Your task to perform on an android device: Search for pizza restaurants on Maps Image 0: 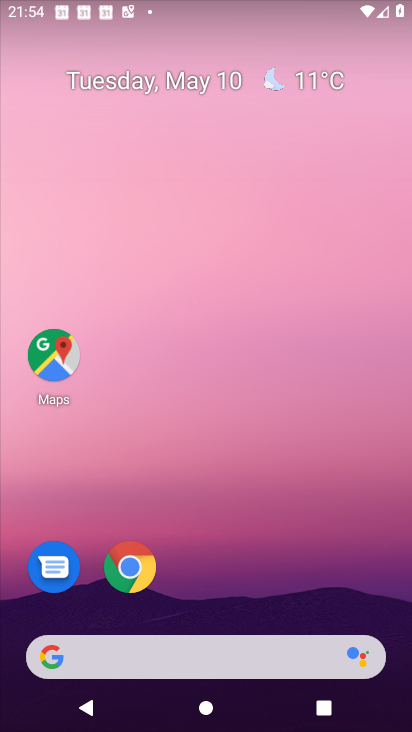
Step 0: click (42, 337)
Your task to perform on an android device: Search for pizza restaurants on Maps Image 1: 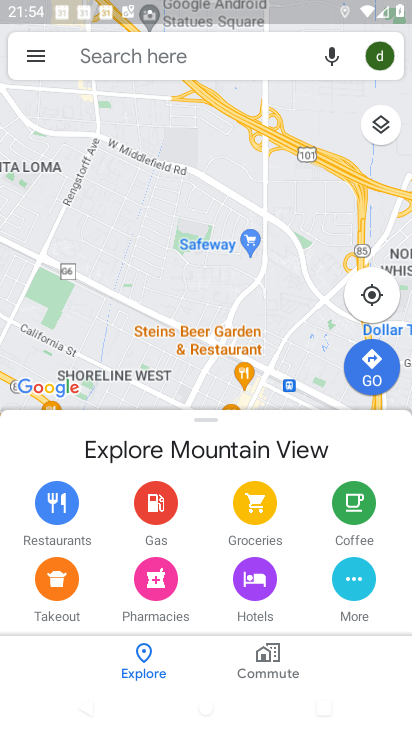
Step 1: click (135, 60)
Your task to perform on an android device: Search for pizza restaurants on Maps Image 2: 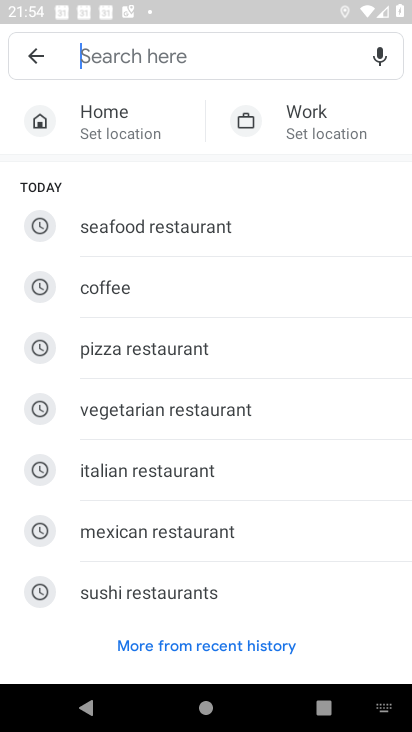
Step 2: type "pizza restaurants"
Your task to perform on an android device: Search for pizza restaurants on Maps Image 3: 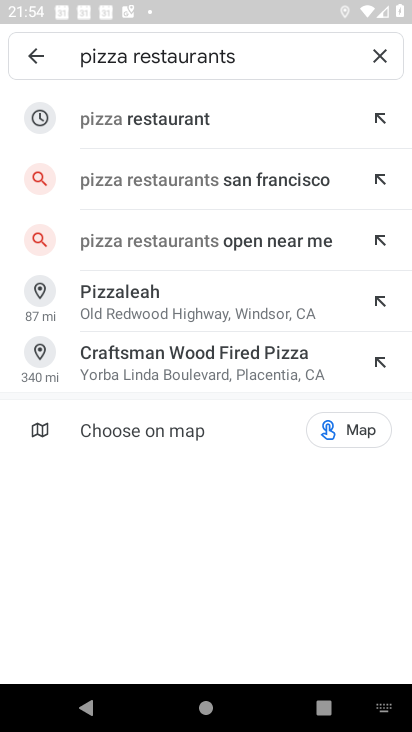
Step 3: click (198, 112)
Your task to perform on an android device: Search for pizza restaurants on Maps Image 4: 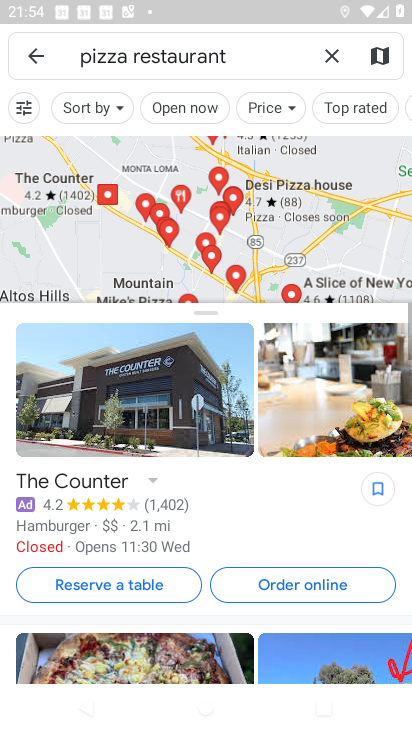
Step 4: task complete